Your task to perform on an android device: move an email to a new category in the gmail app Image 0: 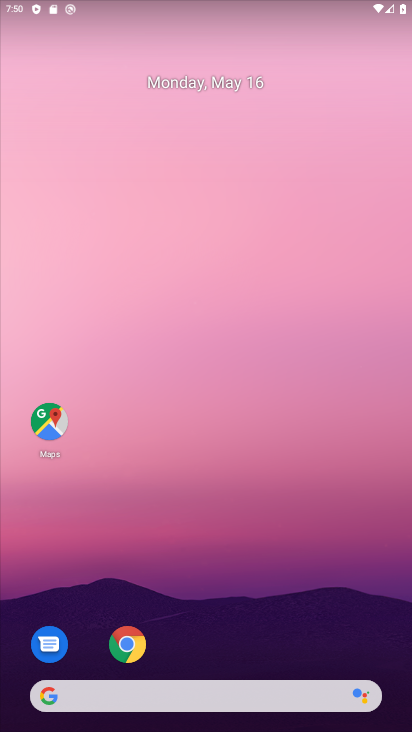
Step 0: drag from (269, 551) to (283, 276)
Your task to perform on an android device: move an email to a new category in the gmail app Image 1: 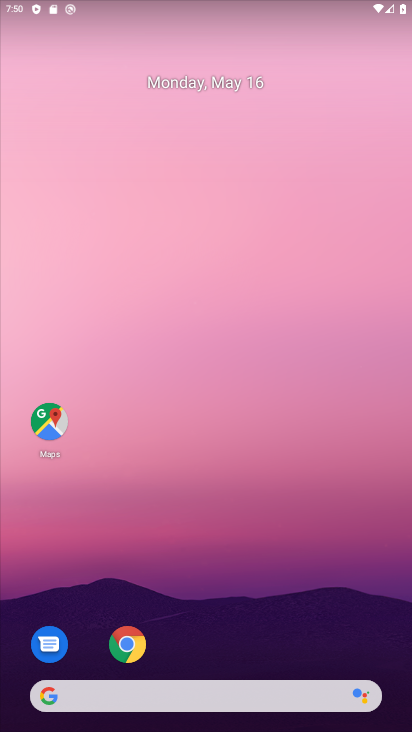
Step 1: drag from (225, 653) to (305, 40)
Your task to perform on an android device: move an email to a new category in the gmail app Image 2: 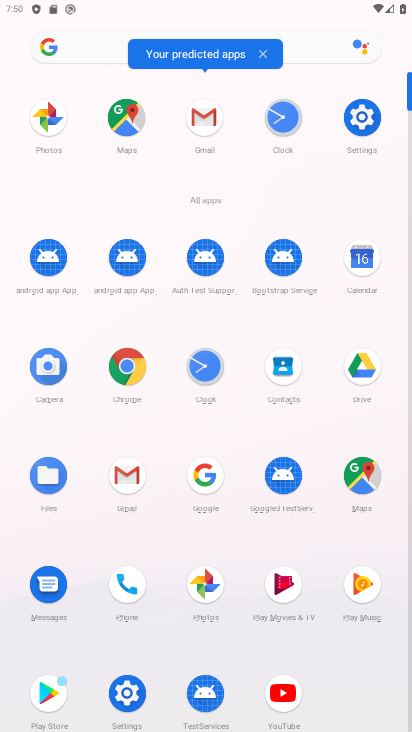
Step 2: click (196, 116)
Your task to perform on an android device: move an email to a new category in the gmail app Image 3: 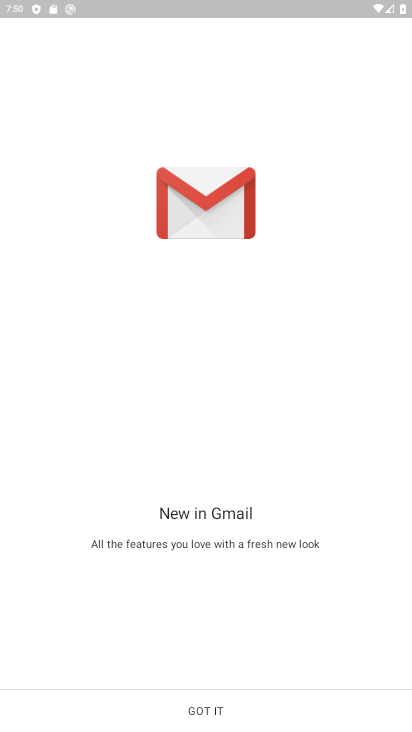
Step 3: click (279, 699)
Your task to perform on an android device: move an email to a new category in the gmail app Image 4: 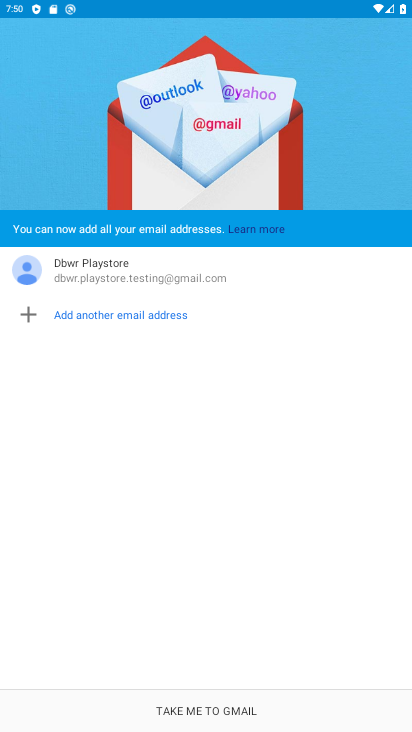
Step 4: click (204, 706)
Your task to perform on an android device: move an email to a new category in the gmail app Image 5: 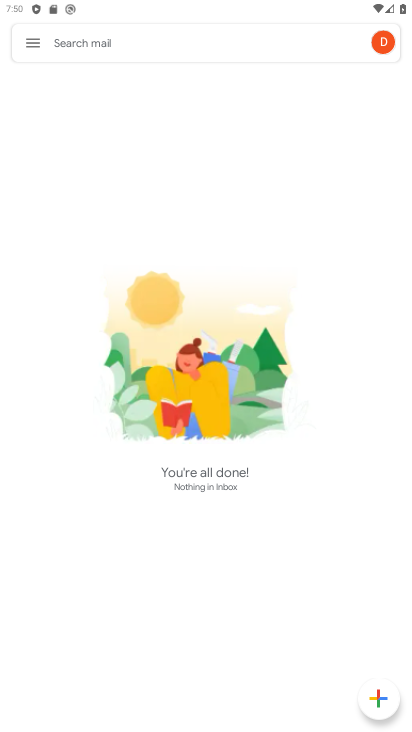
Step 5: task complete